Your task to perform on an android device: empty trash in google photos Image 0: 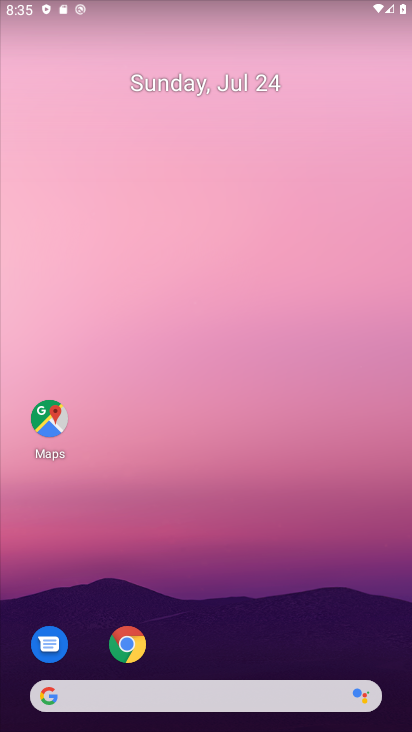
Step 0: drag from (240, 621) to (261, 93)
Your task to perform on an android device: empty trash in google photos Image 1: 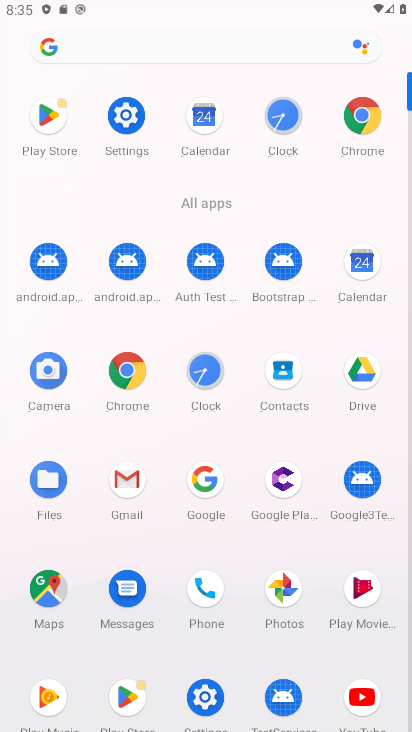
Step 1: click (277, 580)
Your task to perform on an android device: empty trash in google photos Image 2: 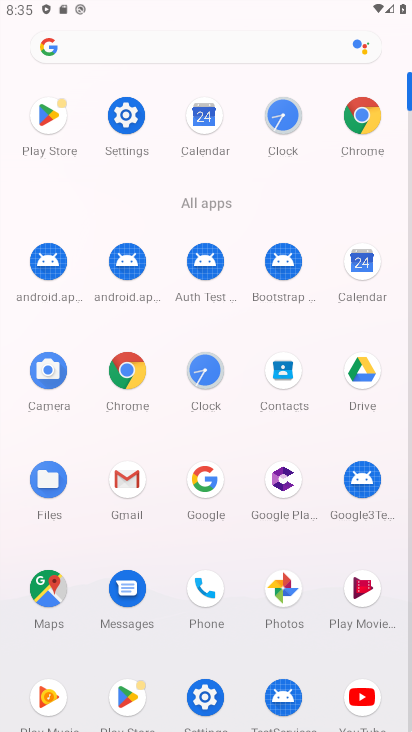
Step 2: click (277, 581)
Your task to perform on an android device: empty trash in google photos Image 3: 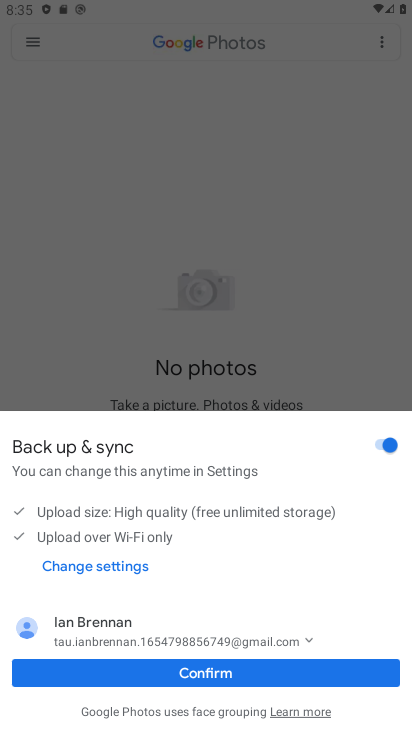
Step 3: click (338, 318)
Your task to perform on an android device: empty trash in google photos Image 4: 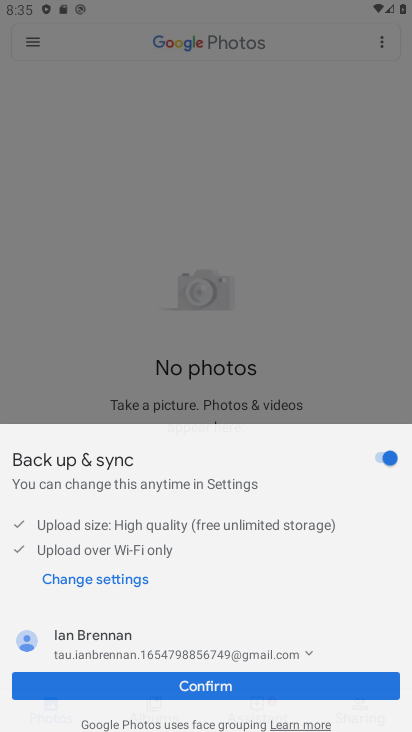
Step 4: click (338, 316)
Your task to perform on an android device: empty trash in google photos Image 5: 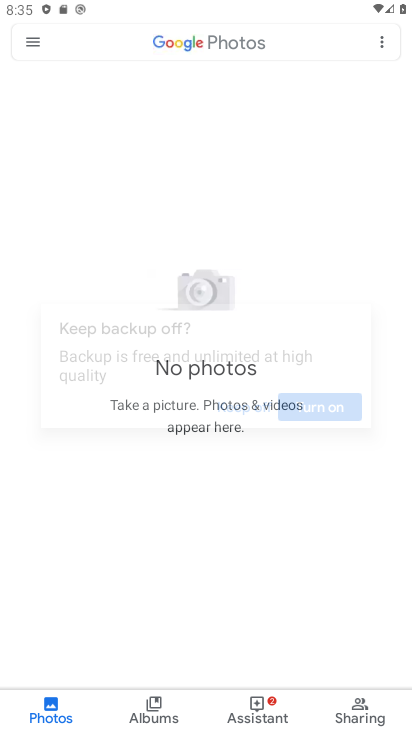
Step 5: click (337, 311)
Your task to perform on an android device: empty trash in google photos Image 6: 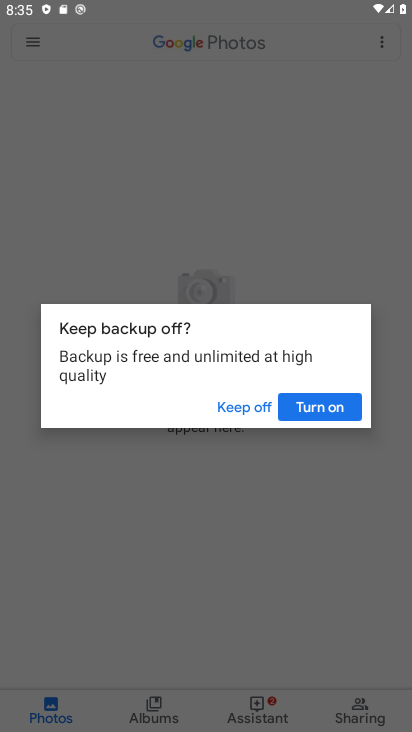
Step 6: click (242, 401)
Your task to perform on an android device: empty trash in google photos Image 7: 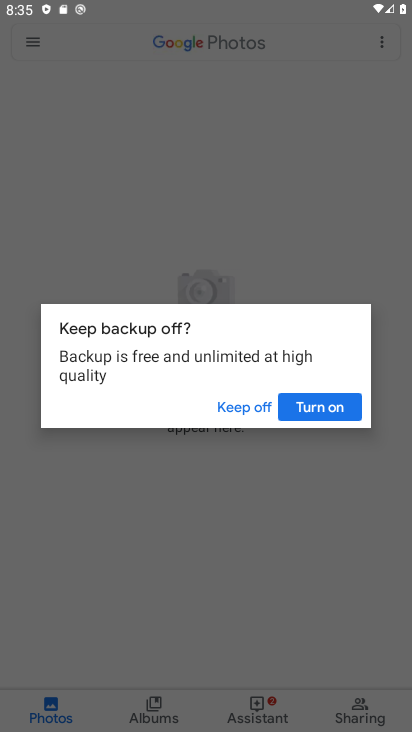
Step 7: click (242, 401)
Your task to perform on an android device: empty trash in google photos Image 8: 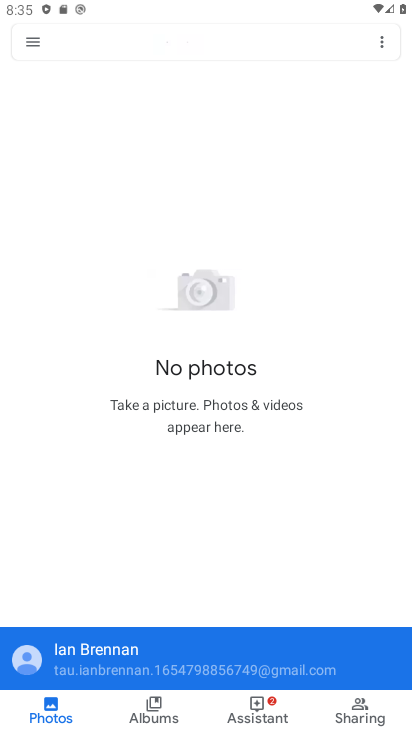
Step 8: click (26, 54)
Your task to perform on an android device: empty trash in google photos Image 9: 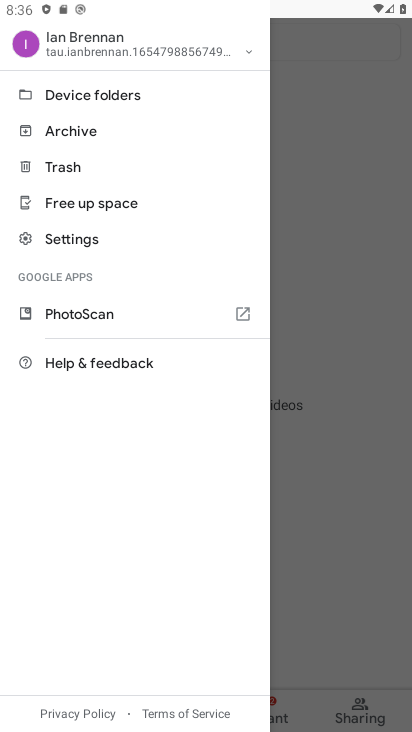
Step 9: click (39, 167)
Your task to perform on an android device: empty trash in google photos Image 10: 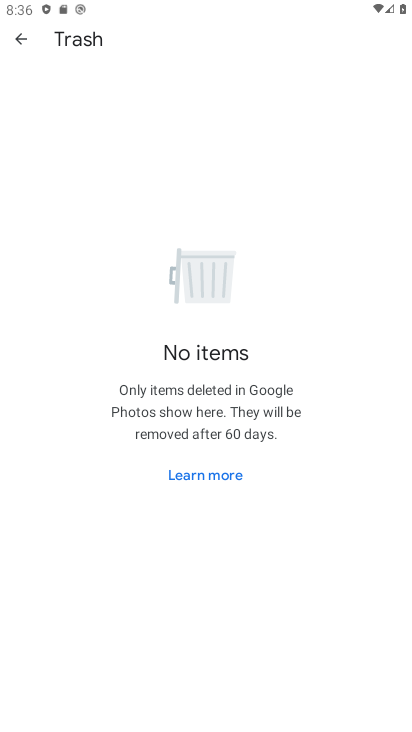
Step 10: task complete